Your task to perform on an android device: refresh tabs in the chrome app Image 0: 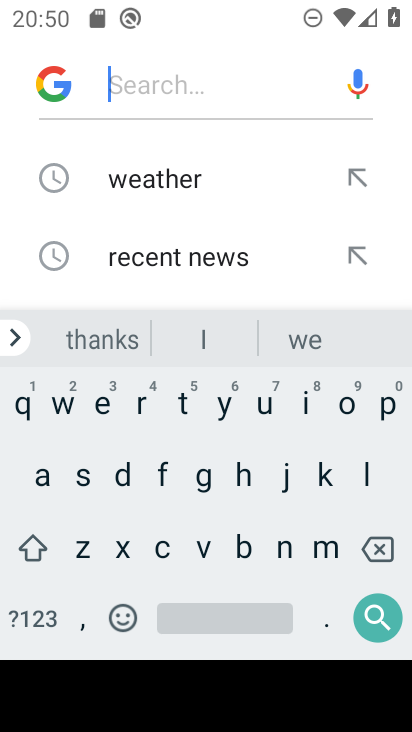
Step 0: press home button
Your task to perform on an android device: refresh tabs in the chrome app Image 1: 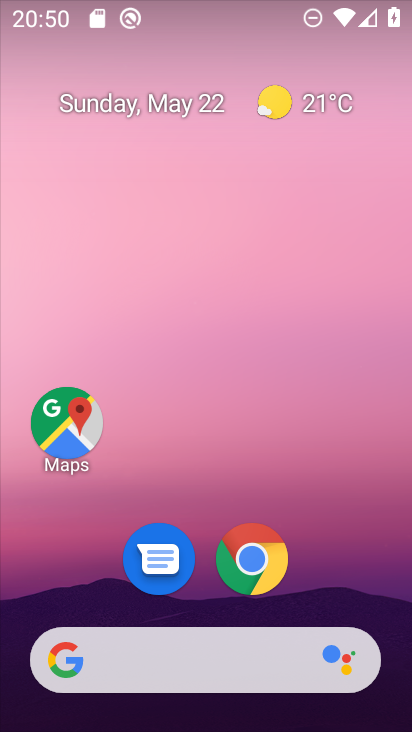
Step 1: drag from (244, 696) to (167, 236)
Your task to perform on an android device: refresh tabs in the chrome app Image 2: 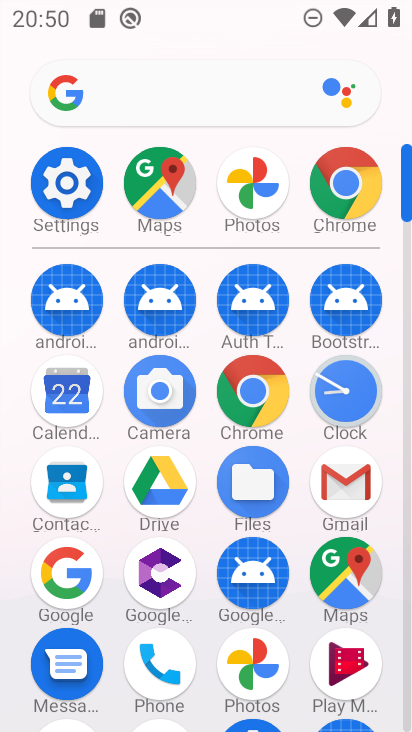
Step 2: click (328, 210)
Your task to perform on an android device: refresh tabs in the chrome app Image 3: 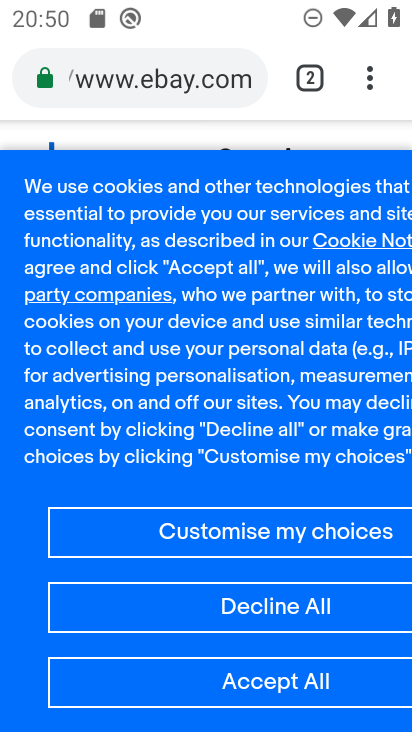
Step 3: click (370, 81)
Your task to perform on an android device: refresh tabs in the chrome app Image 4: 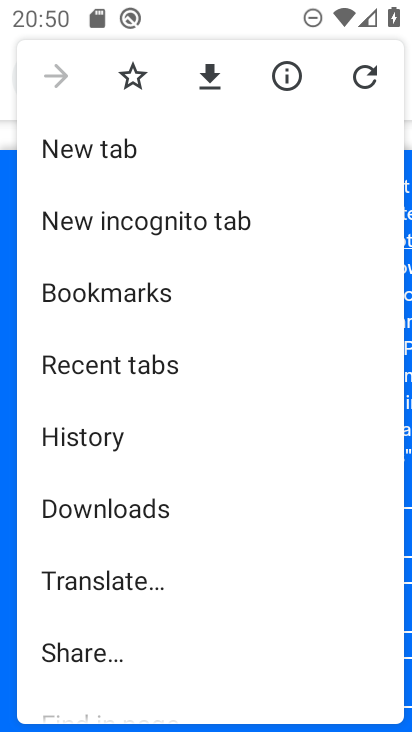
Step 4: click (350, 82)
Your task to perform on an android device: refresh tabs in the chrome app Image 5: 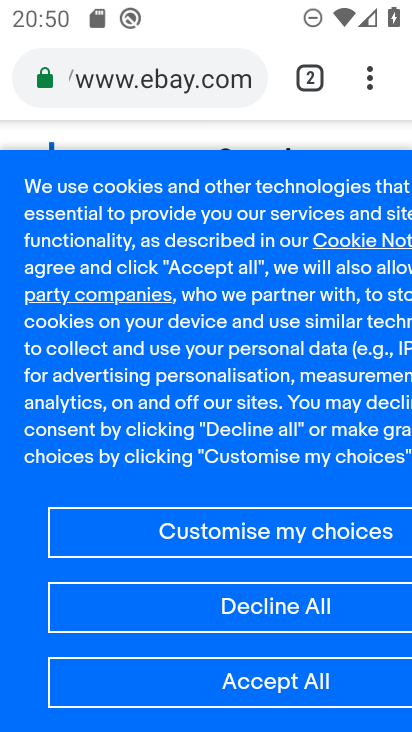
Step 5: click (278, 683)
Your task to perform on an android device: refresh tabs in the chrome app Image 6: 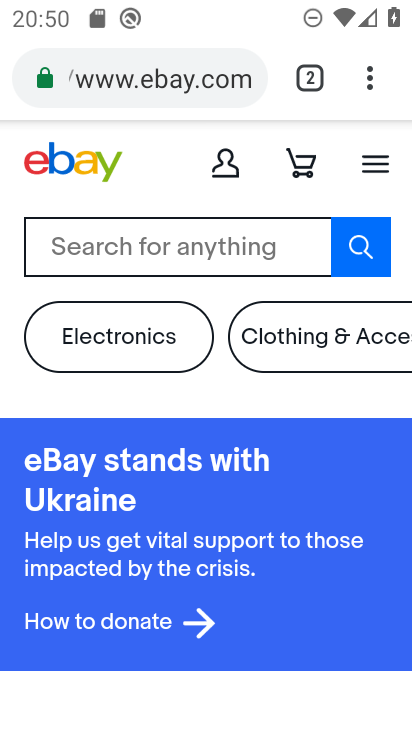
Step 6: task complete